Your task to perform on an android device: What's on my calendar tomorrow? Image 0: 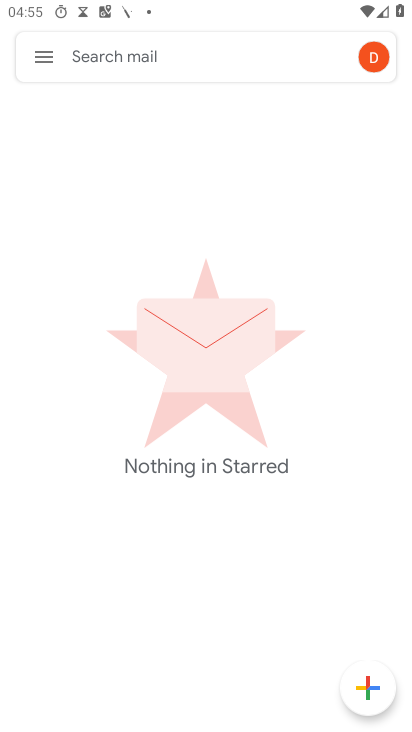
Step 0: press home button
Your task to perform on an android device: What's on my calendar tomorrow? Image 1: 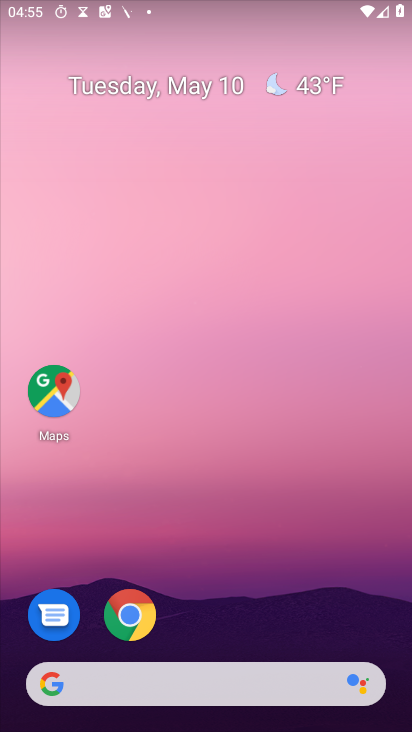
Step 1: drag from (224, 652) to (302, 26)
Your task to perform on an android device: What's on my calendar tomorrow? Image 2: 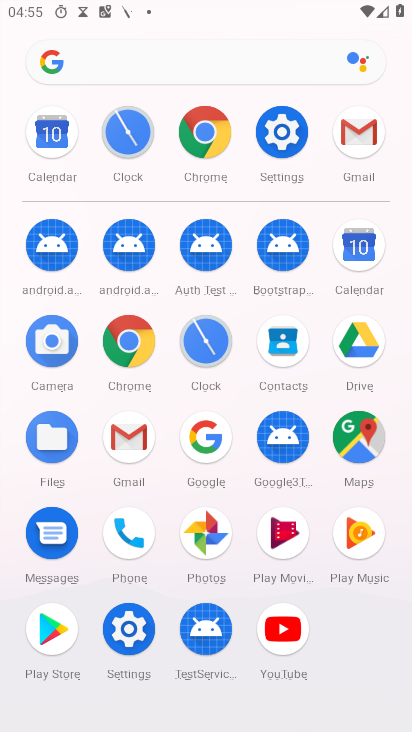
Step 2: click (356, 261)
Your task to perform on an android device: What's on my calendar tomorrow? Image 3: 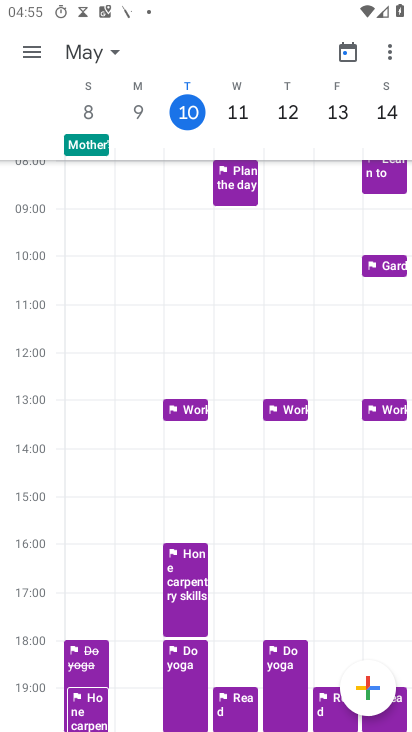
Step 3: click (114, 56)
Your task to perform on an android device: What's on my calendar tomorrow? Image 4: 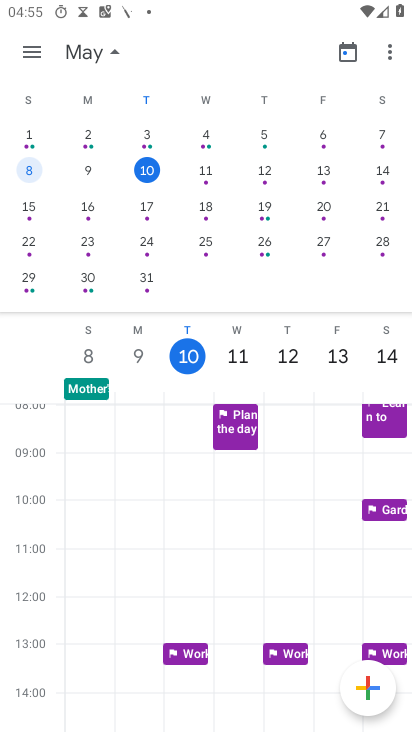
Step 4: click (196, 176)
Your task to perform on an android device: What's on my calendar tomorrow? Image 5: 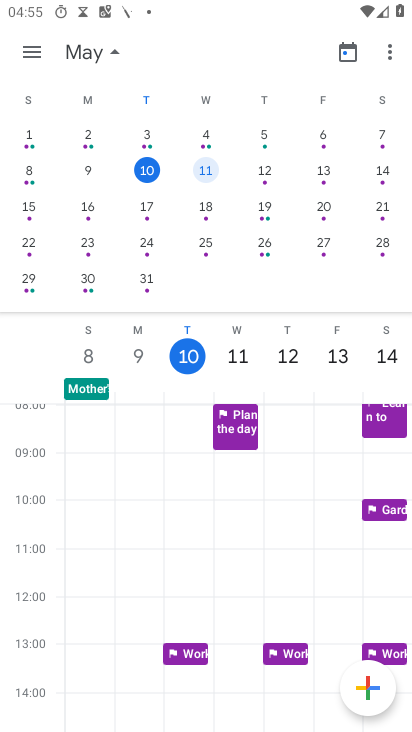
Step 5: click (244, 351)
Your task to perform on an android device: What's on my calendar tomorrow? Image 6: 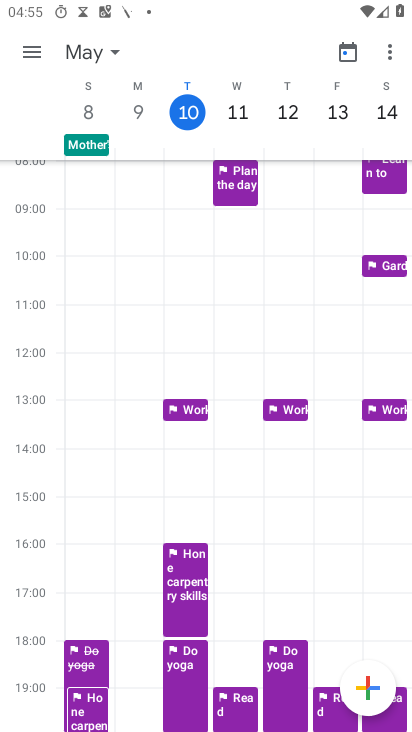
Step 6: click (238, 114)
Your task to perform on an android device: What's on my calendar tomorrow? Image 7: 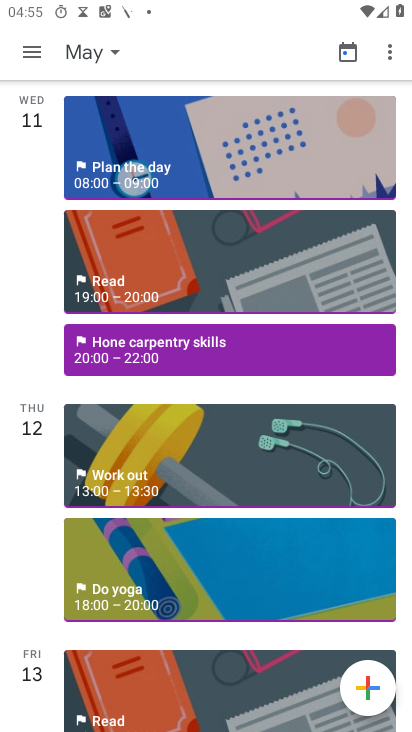
Step 7: task complete